Your task to perform on an android device: Open Google Maps and go to "Timeline" Image 0: 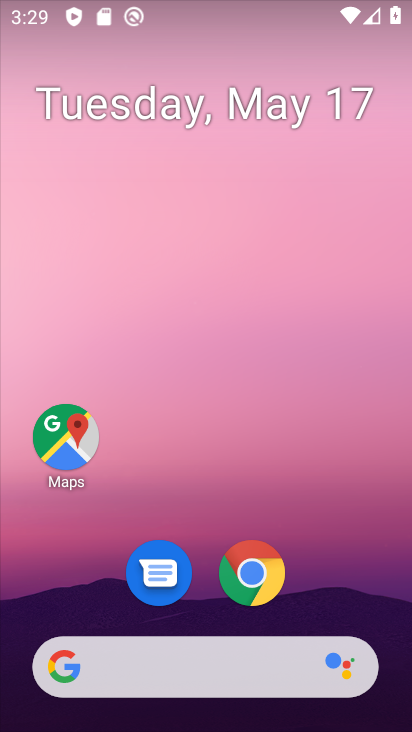
Step 0: drag from (339, 558) to (281, 272)
Your task to perform on an android device: Open Google Maps and go to "Timeline" Image 1: 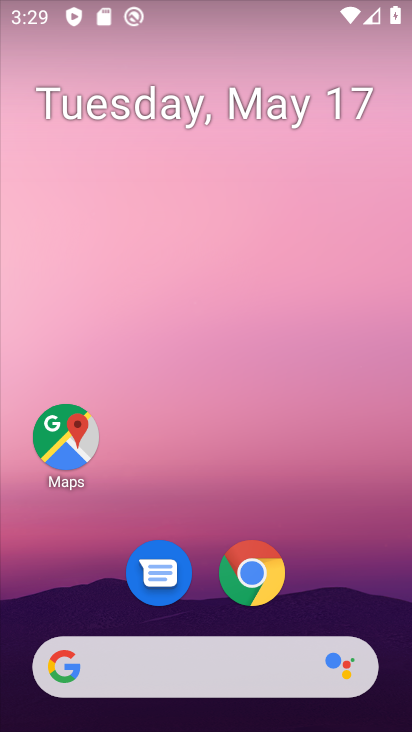
Step 1: click (65, 426)
Your task to perform on an android device: Open Google Maps and go to "Timeline" Image 2: 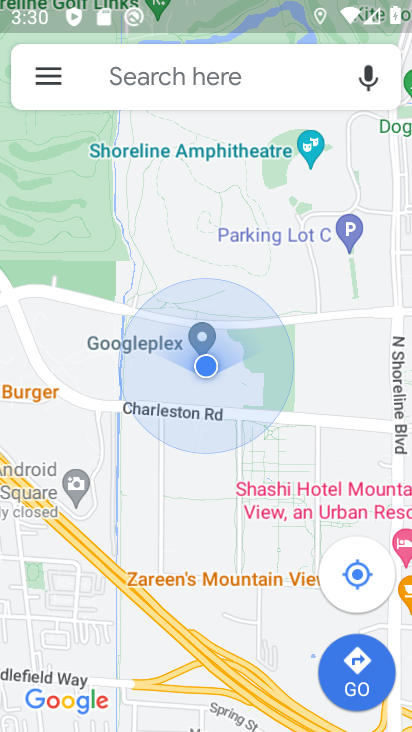
Step 2: click (53, 85)
Your task to perform on an android device: Open Google Maps and go to "Timeline" Image 3: 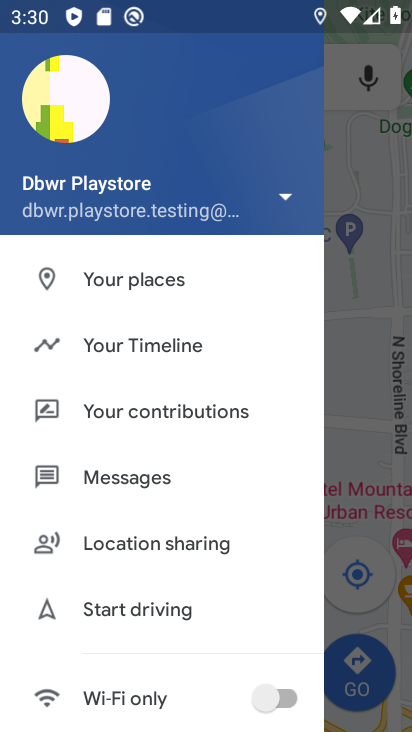
Step 3: click (176, 358)
Your task to perform on an android device: Open Google Maps and go to "Timeline" Image 4: 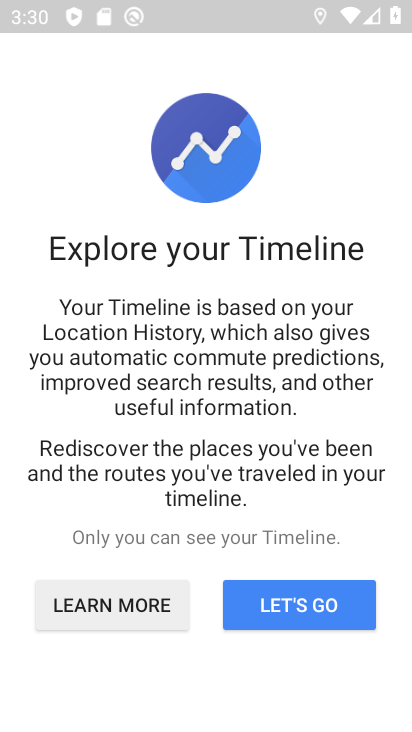
Step 4: click (359, 598)
Your task to perform on an android device: Open Google Maps and go to "Timeline" Image 5: 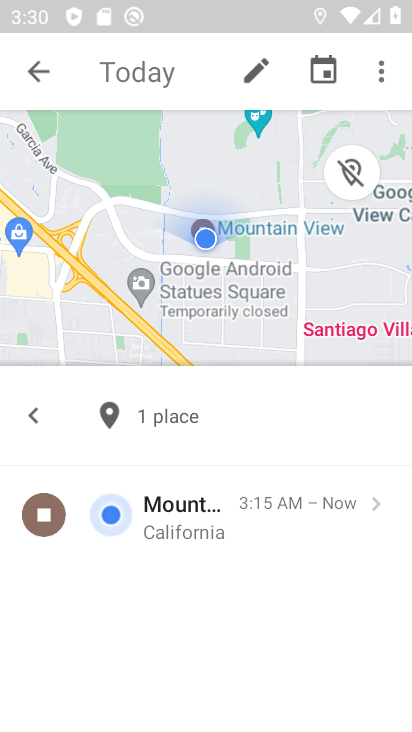
Step 5: click (55, 74)
Your task to perform on an android device: Open Google Maps and go to "Timeline" Image 6: 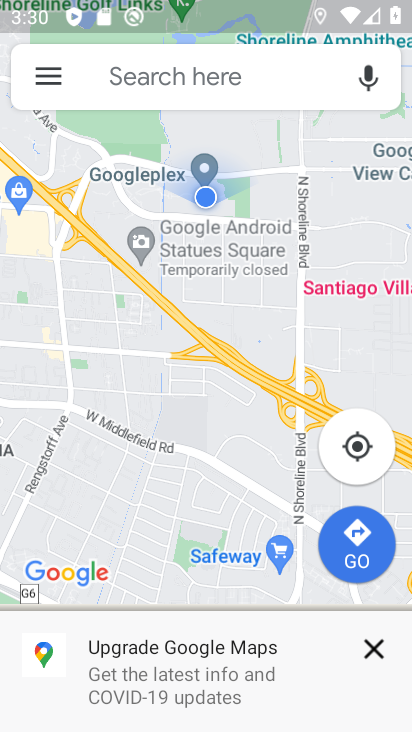
Step 6: click (52, 83)
Your task to perform on an android device: Open Google Maps and go to "Timeline" Image 7: 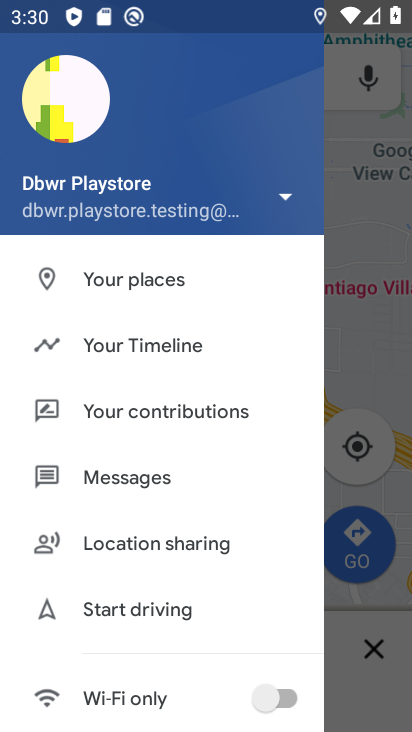
Step 7: click (162, 343)
Your task to perform on an android device: Open Google Maps and go to "Timeline" Image 8: 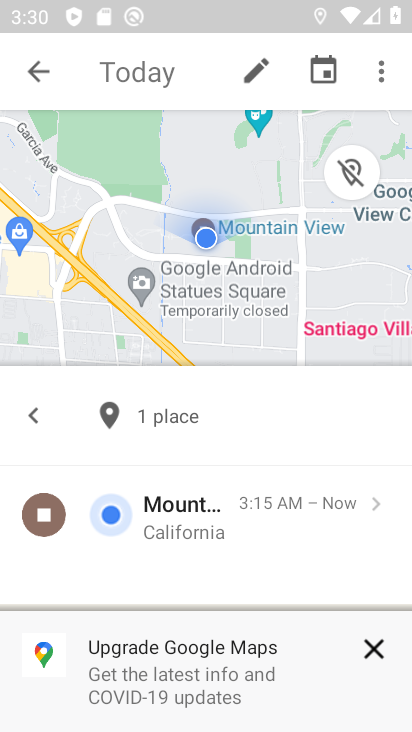
Step 8: task complete